Your task to perform on an android device: turn off sleep mode Image 0: 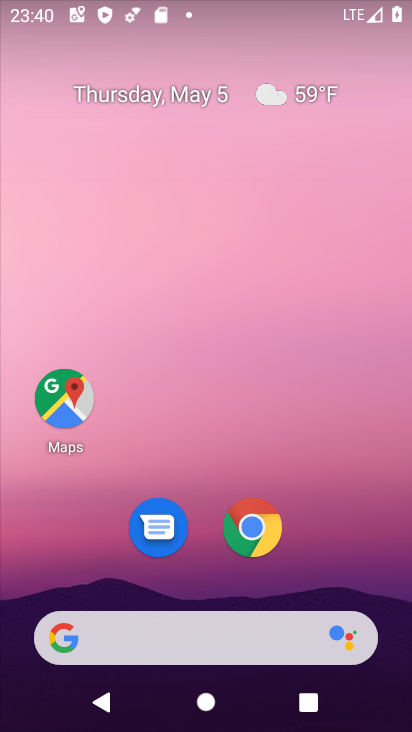
Step 0: drag from (193, 588) to (173, 126)
Your task to perform on an android device: turn off sleep mode Image 1: 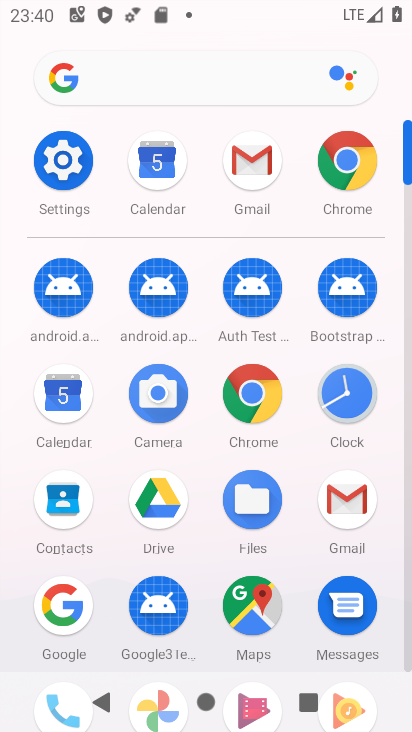
Step 1: click (81, 184)
Your task to perform on an android device: turn off sleep mode Image 2: 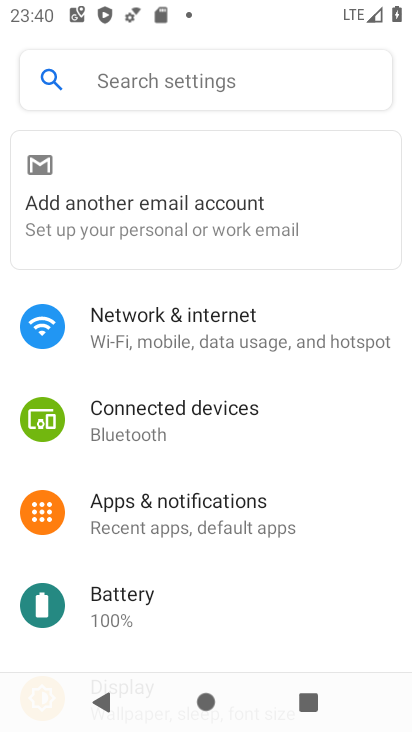
Step 2: click (193, 79)
Your task to perform on an android device: turn off sleep mode Image 3: 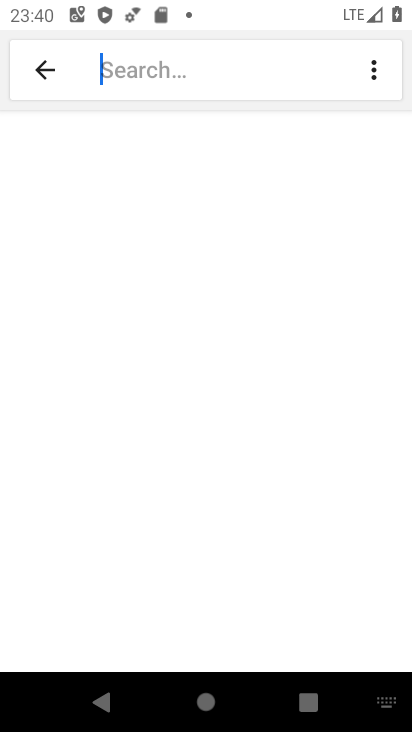
Step 3: type "sleep mode"
Your task to perform on an android device: turn off sleep mode Image 4: 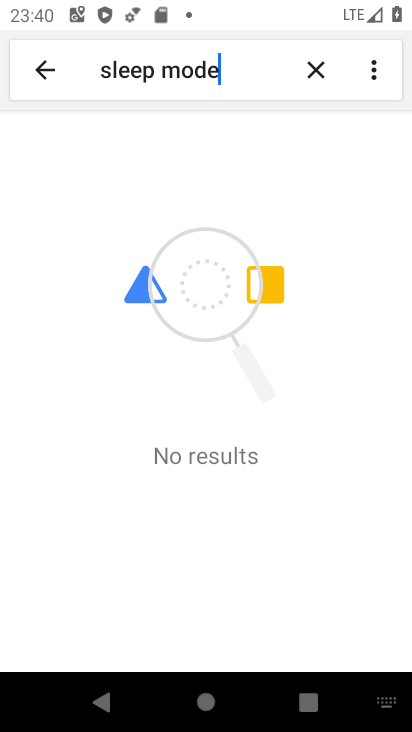
Step 4: task complete